Your task to perform on an android device: Go to notification settings Image 0: 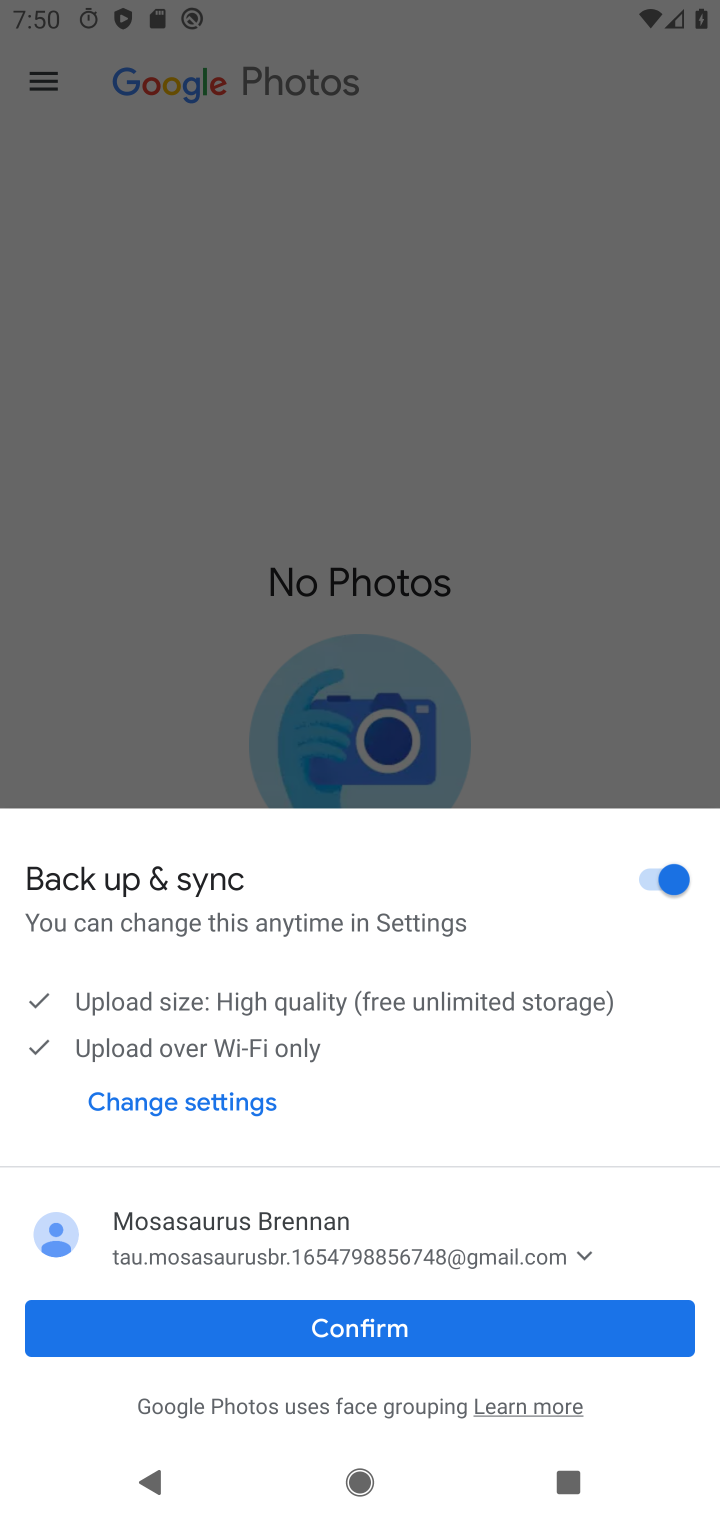
Step 0: press home button
Your task to perform on an android device: Go to notification settings Image 1: 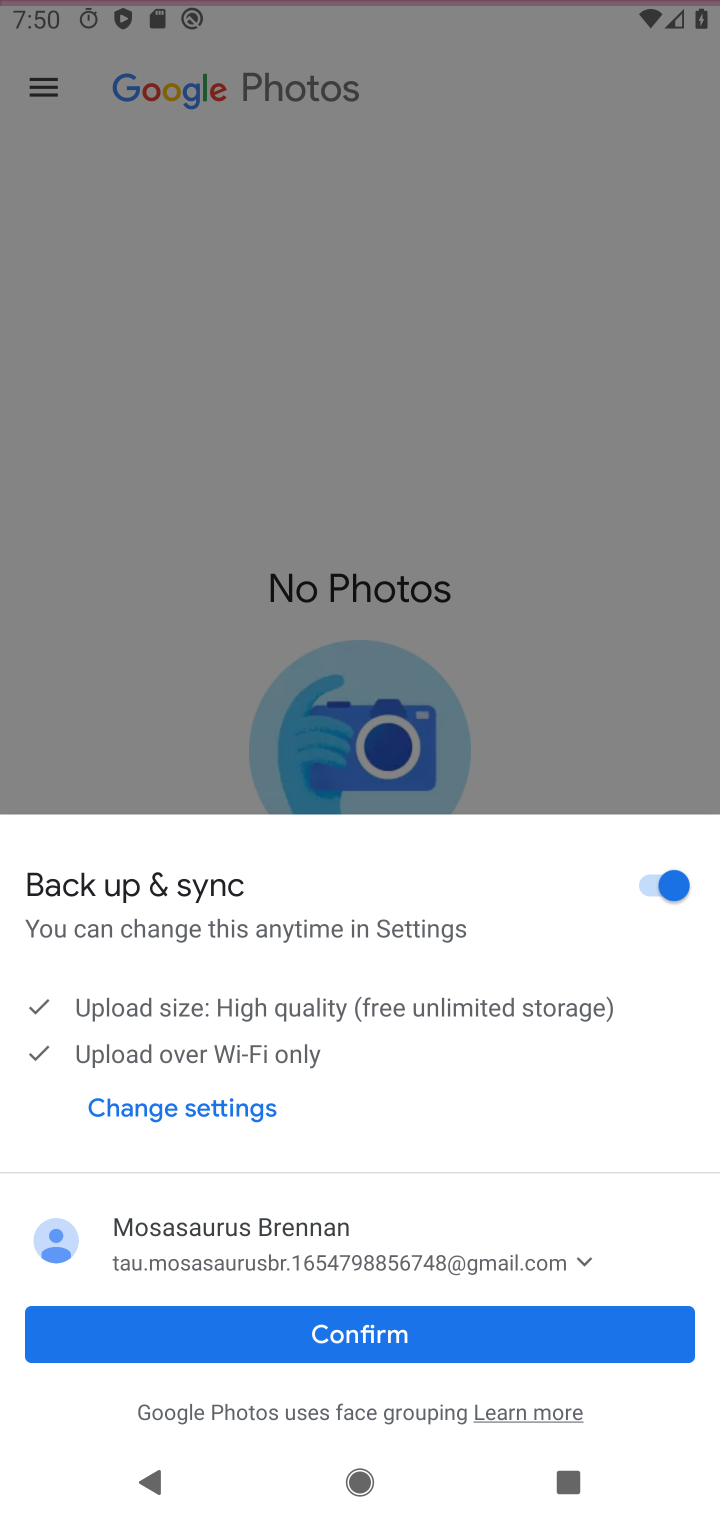
Step 1: click (398, 119)
Your task to perform on an android device: Go to notification settings Image 2: 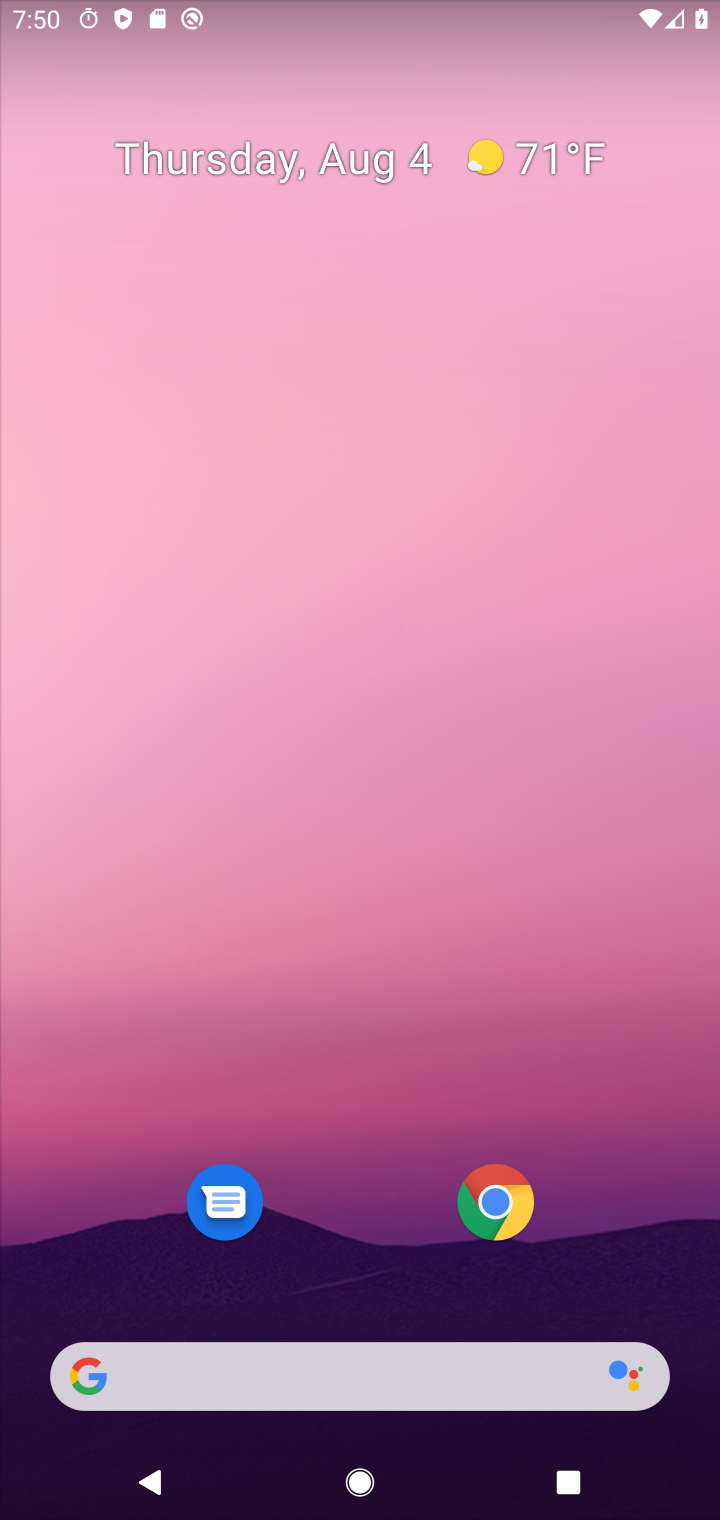
Step 2: click (345, 368)
Your task to perform on an android device: Go to notification settings Image 3: 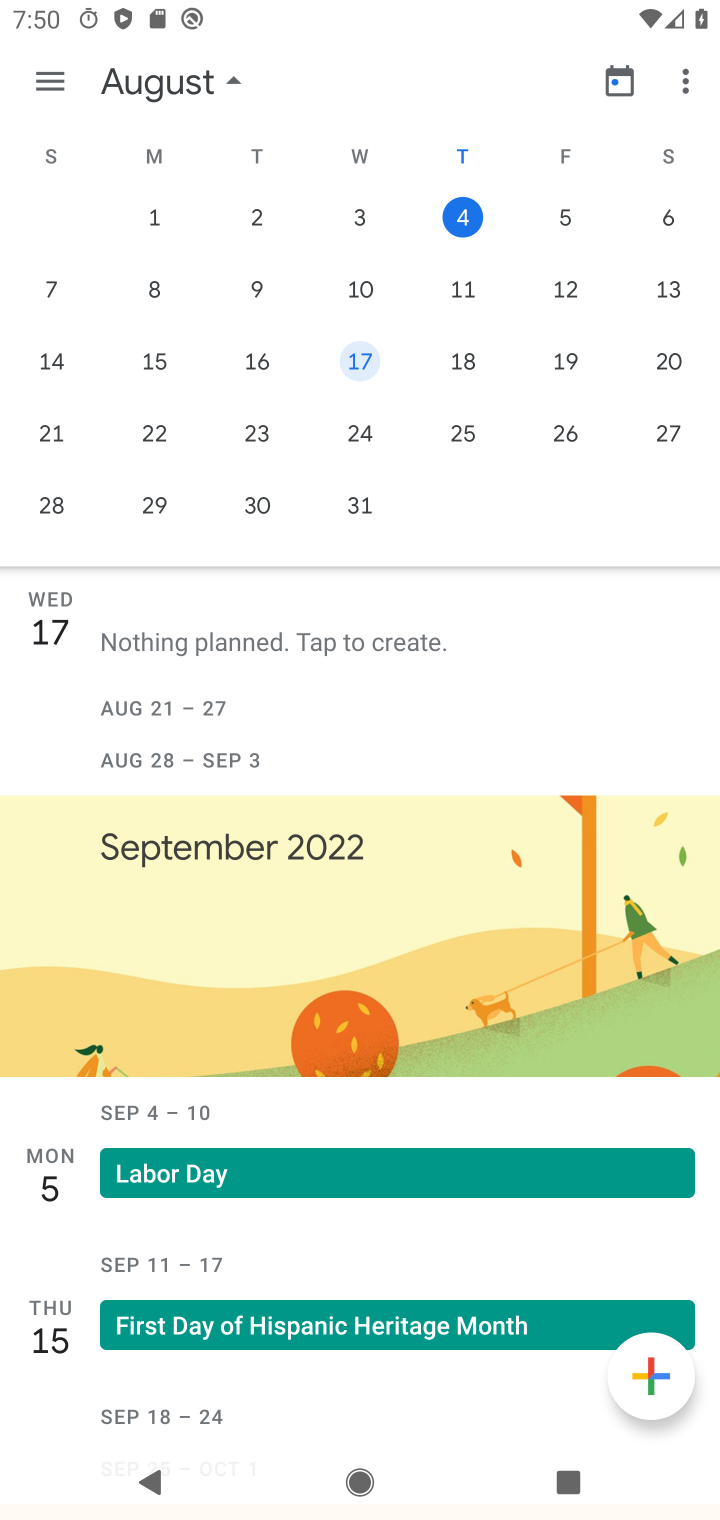
Step 3: press home button
Your task to perform on an android device: Go to notification settings Image 4: 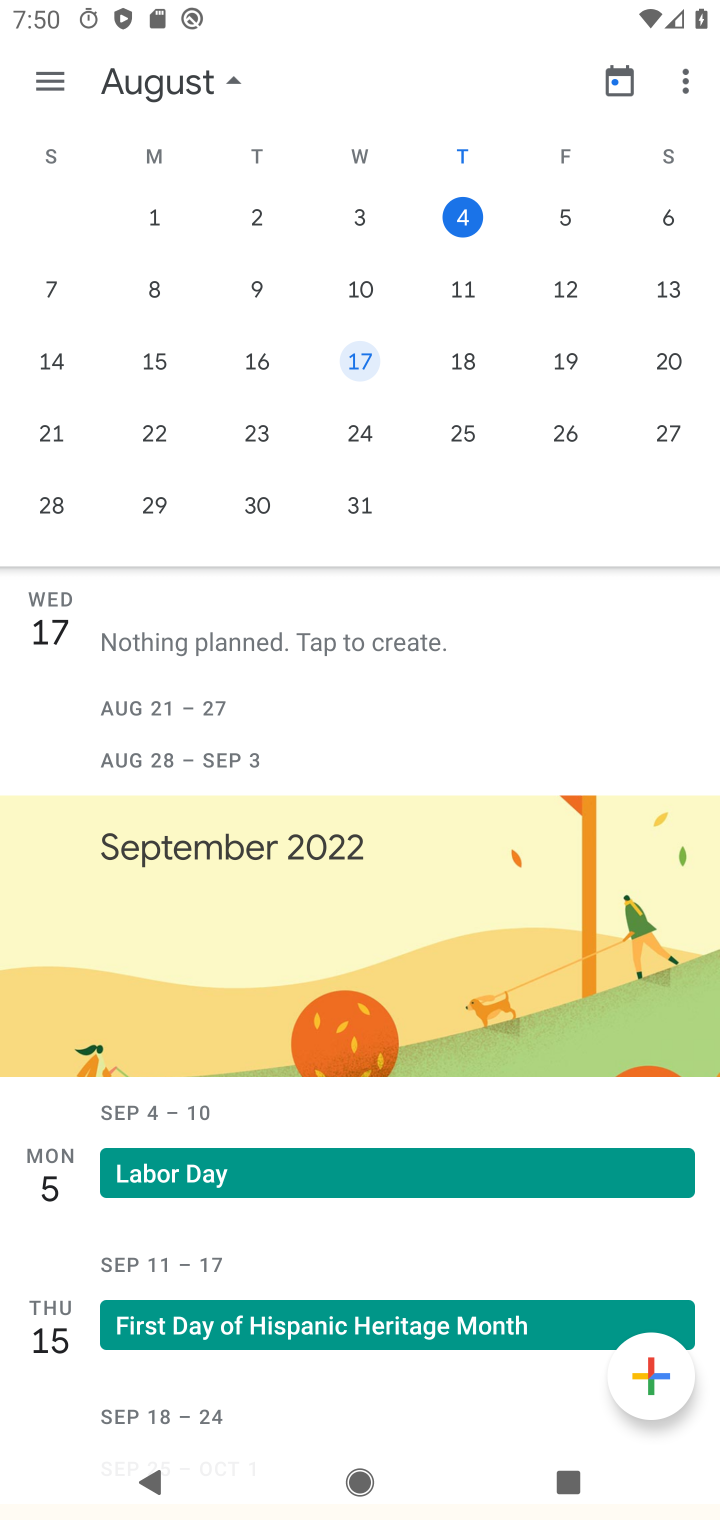
Step 4: click (410, 174)
Your task to perform on an android device: Go to notification settings Image 5: 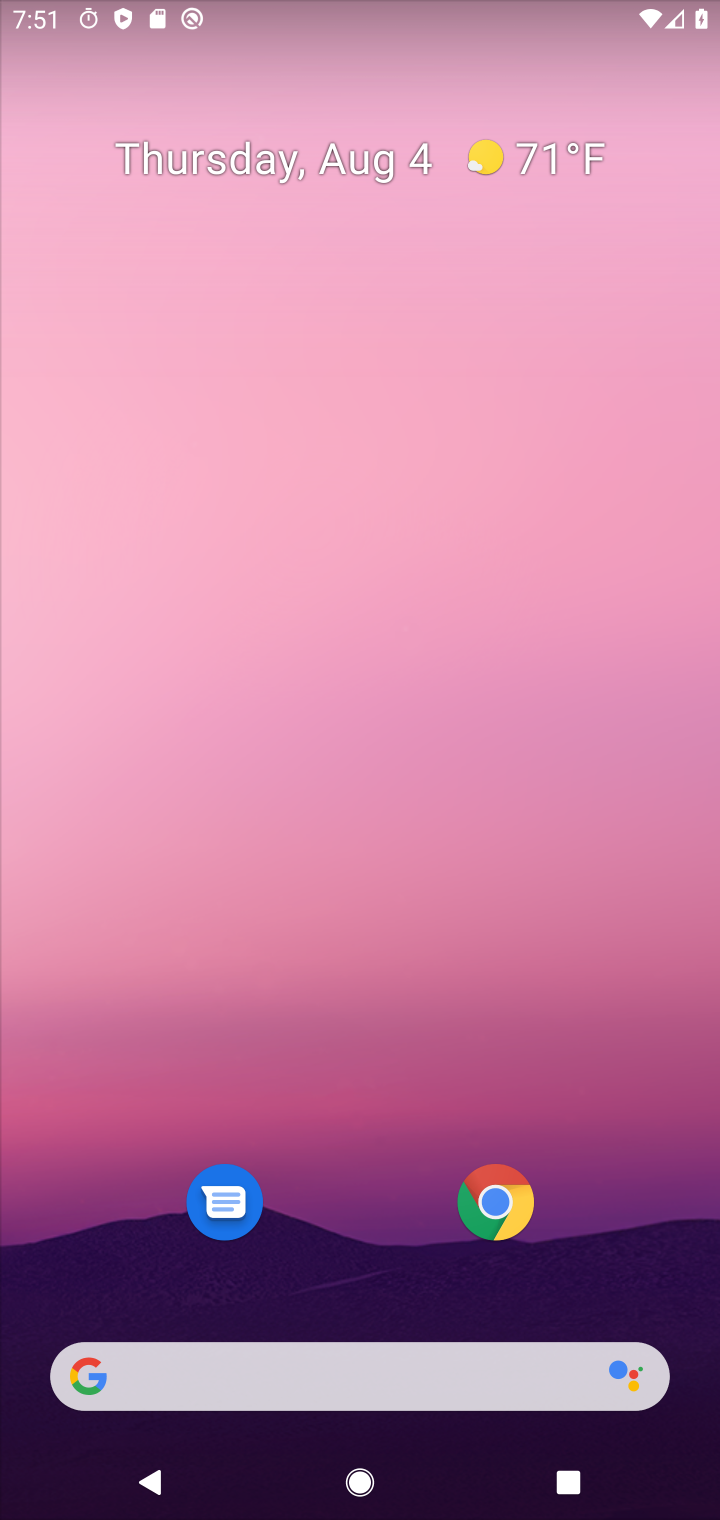
Step 5: drag from (347, 1004) to (400, 120)
Your task to perform on an android device: Go to notification settings Image 6: 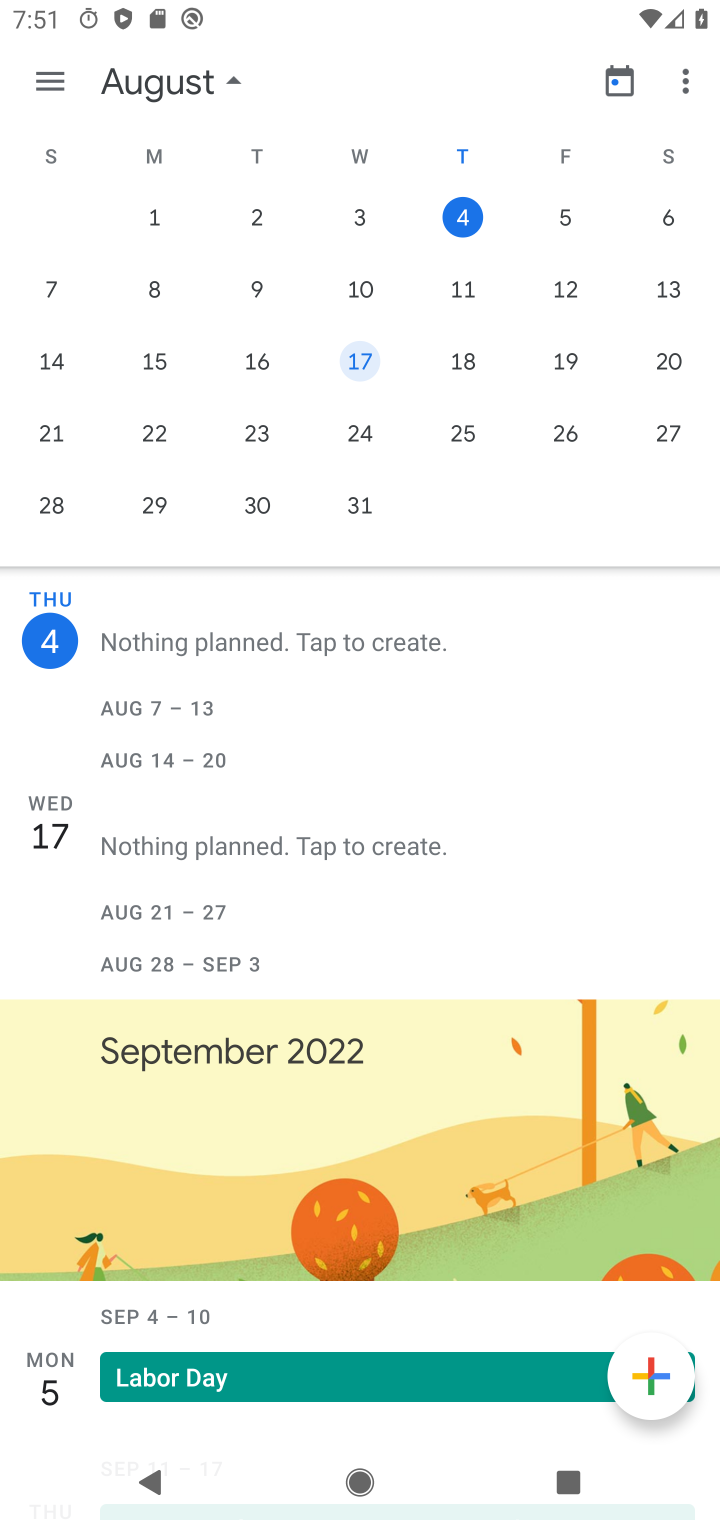
Step 6: press home button
Your task to perform on an android device: Go to notification settings Image 7: 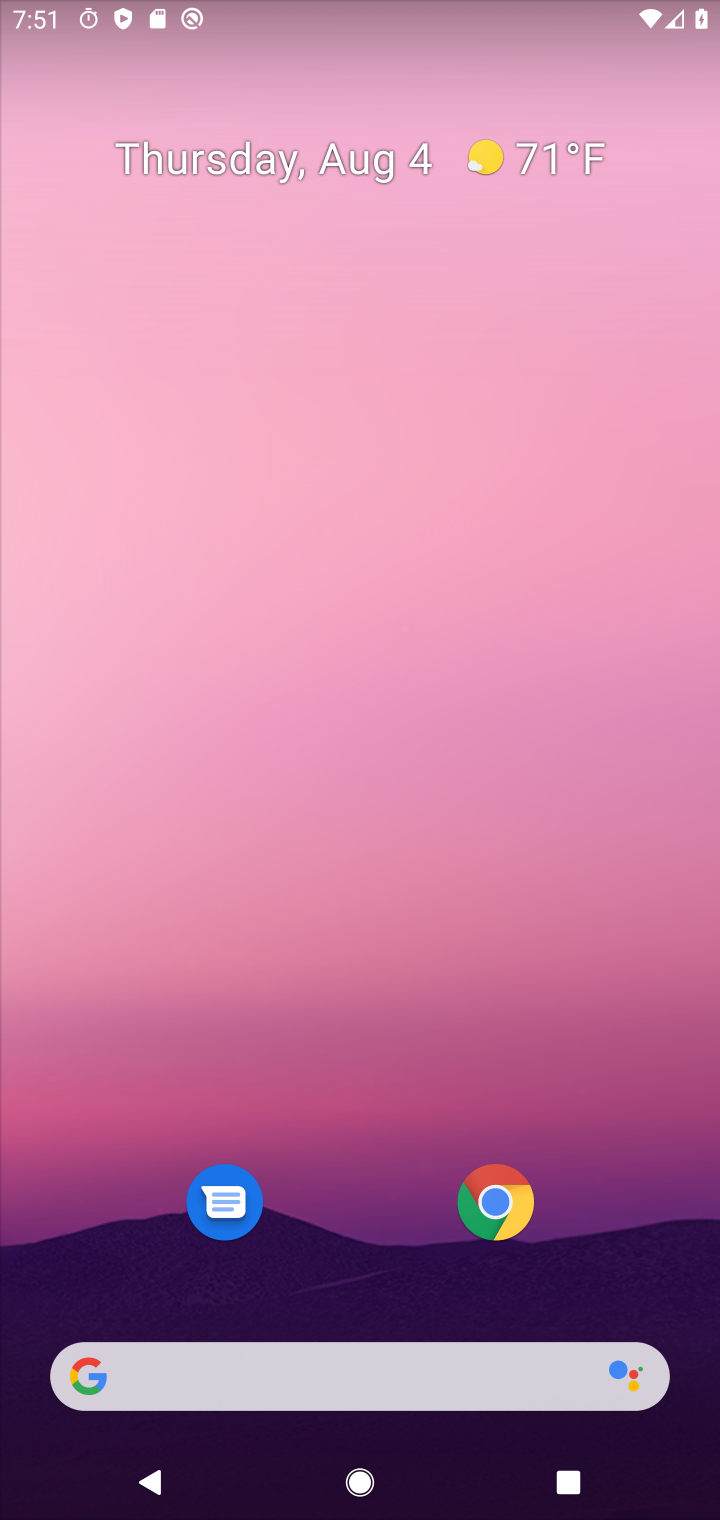
Step 7: drag from (318, 1259) to (266, 143)
Your task to perform on an android device: Go to notification settings Image 8: 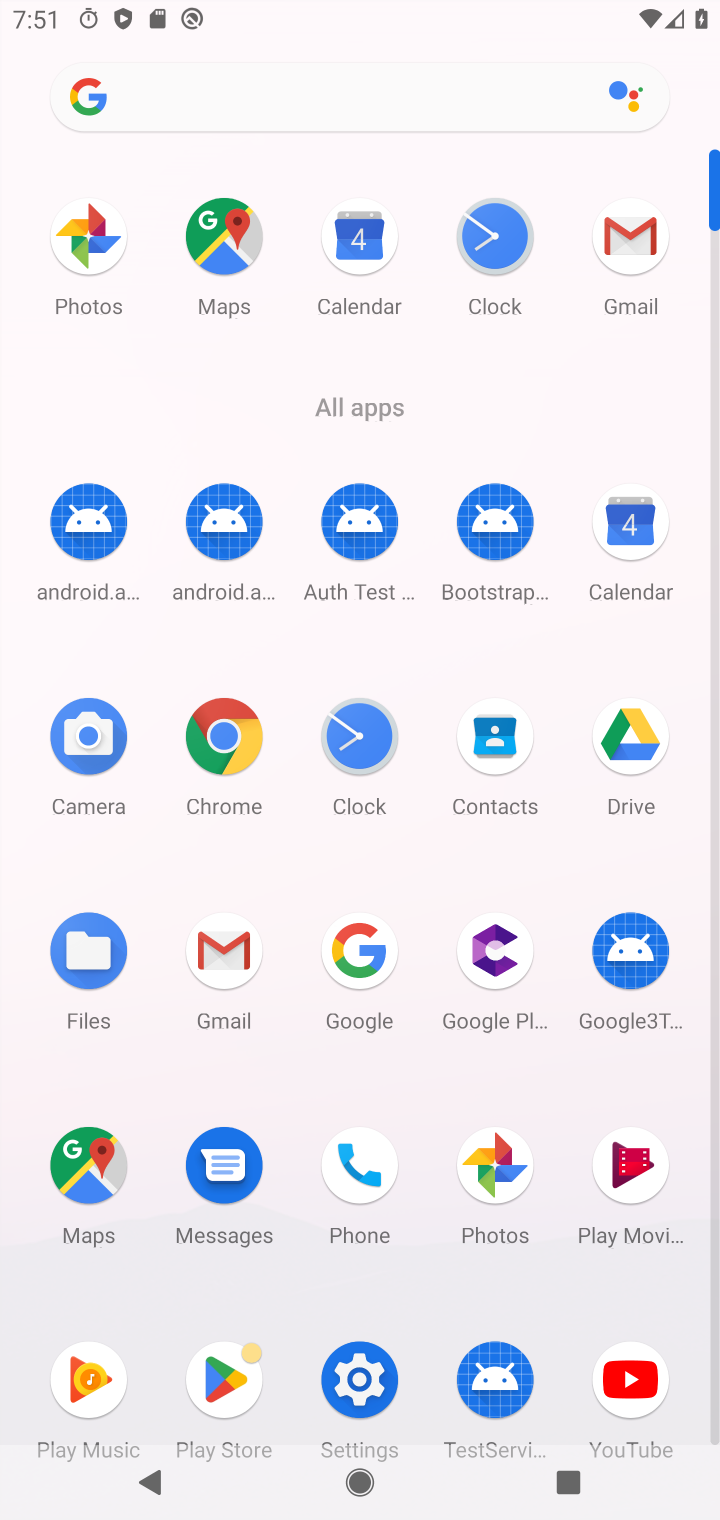
Step 8: click (374, 1352)
Your task to perform on an android device: Go to notification settings Image 9: 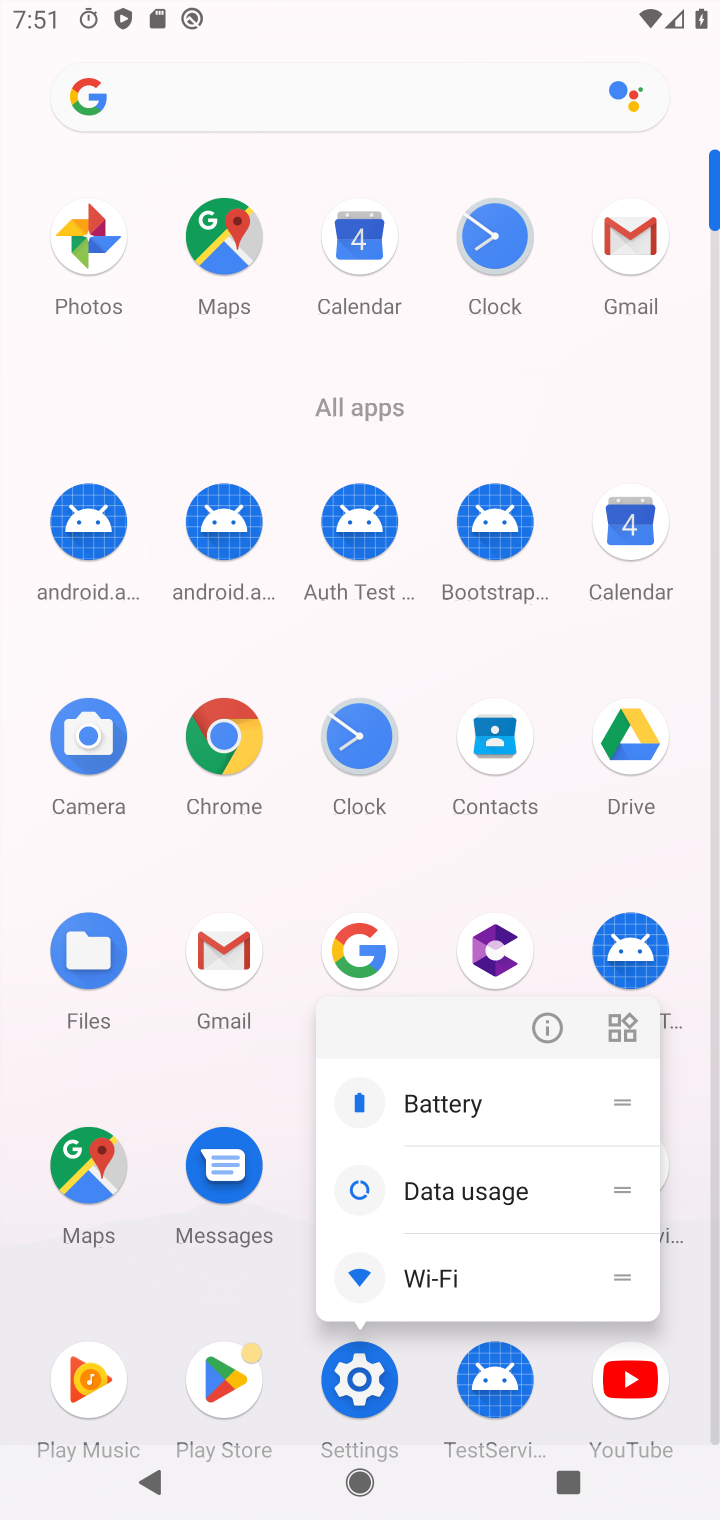
Step 9: click (546, 1029)
Your task to perform on an android device: Go to notification settings Image 10: 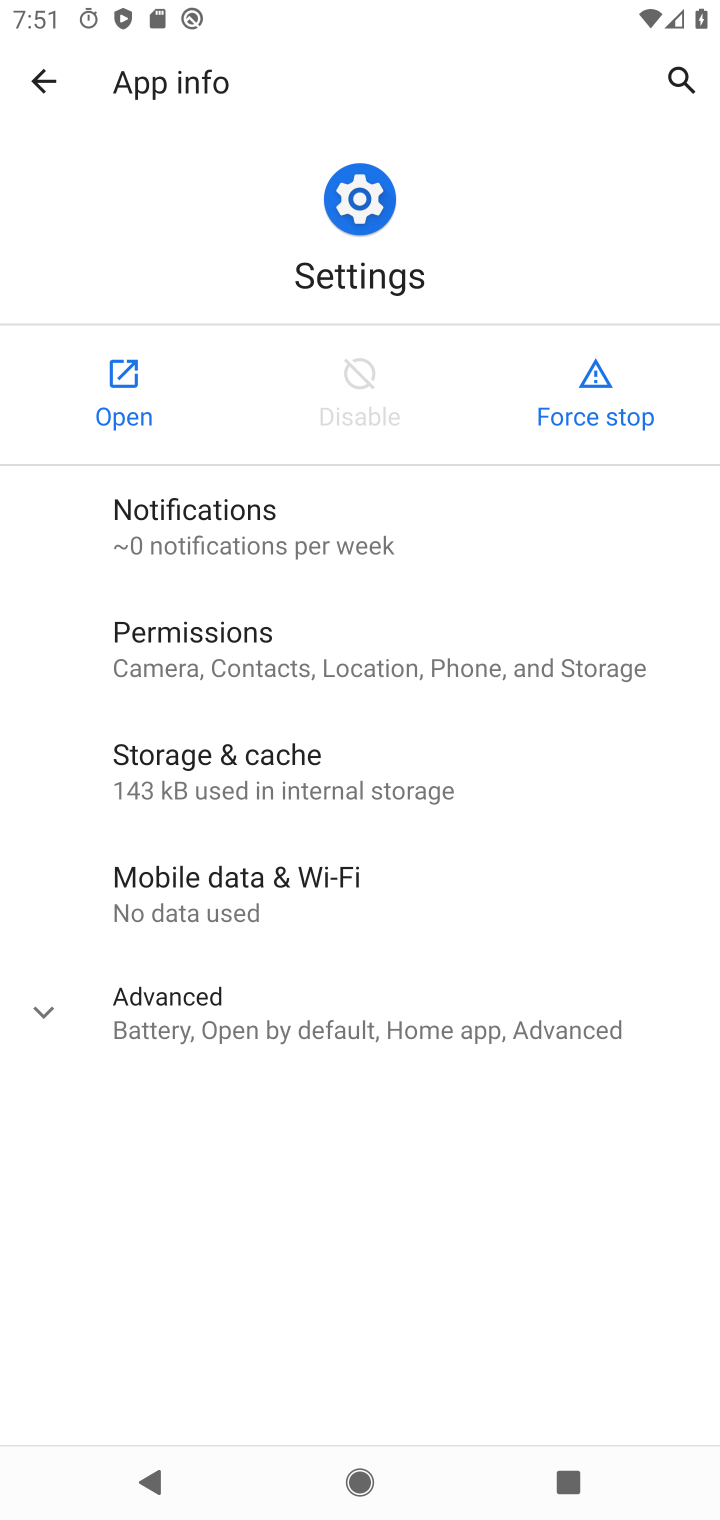
Step 10: click (86, 398)
Your task to perform on an android device: Go to notification settings Image 11: 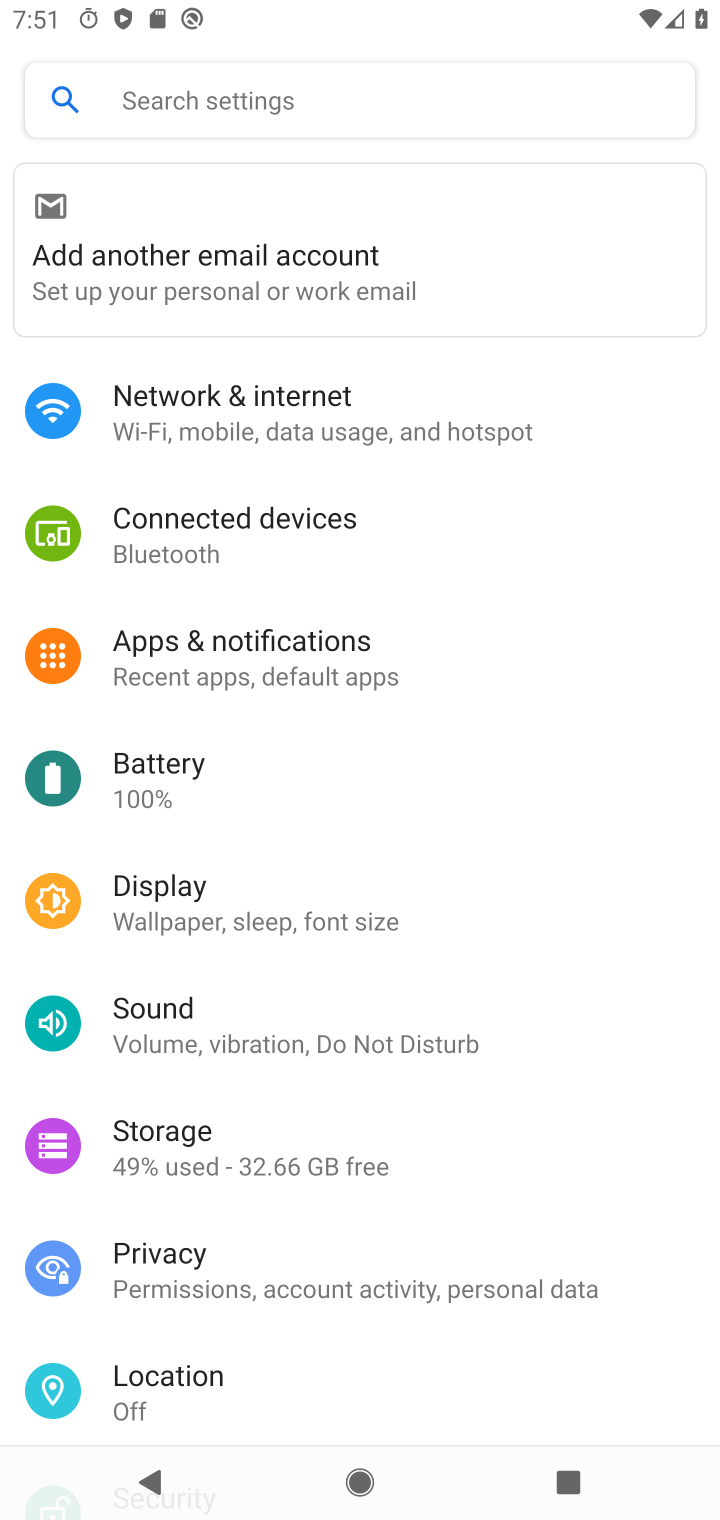
Step 11: drag from (315, 569) to (414, 289)
Your task to perform on an android device: Go to notification settings Image 12: 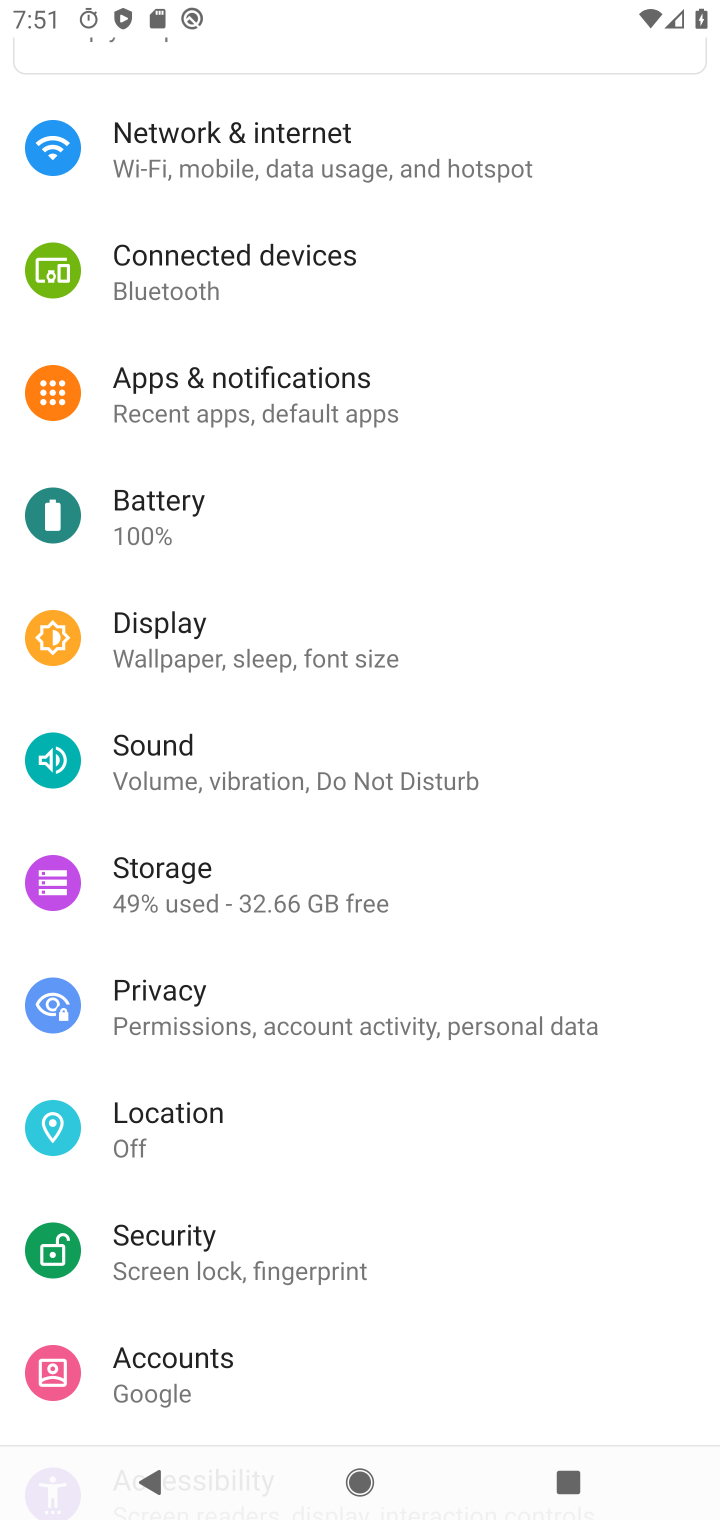
Step 12: click (206, 397)
Your task to perform on an android device: Go to notification settings Image 13: 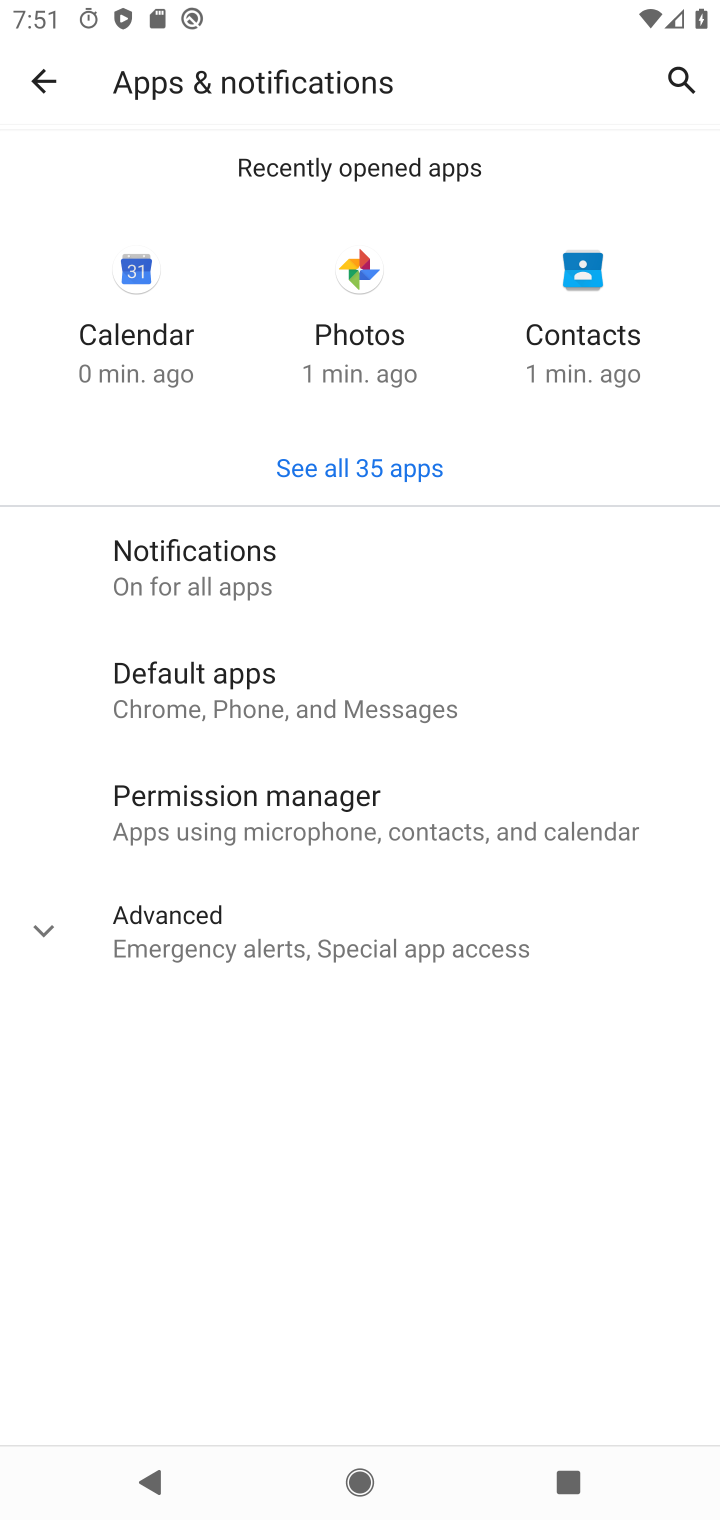
Step 13: click (327, 569)
Your task to perform on an android device: Go to notification settings Image 14: 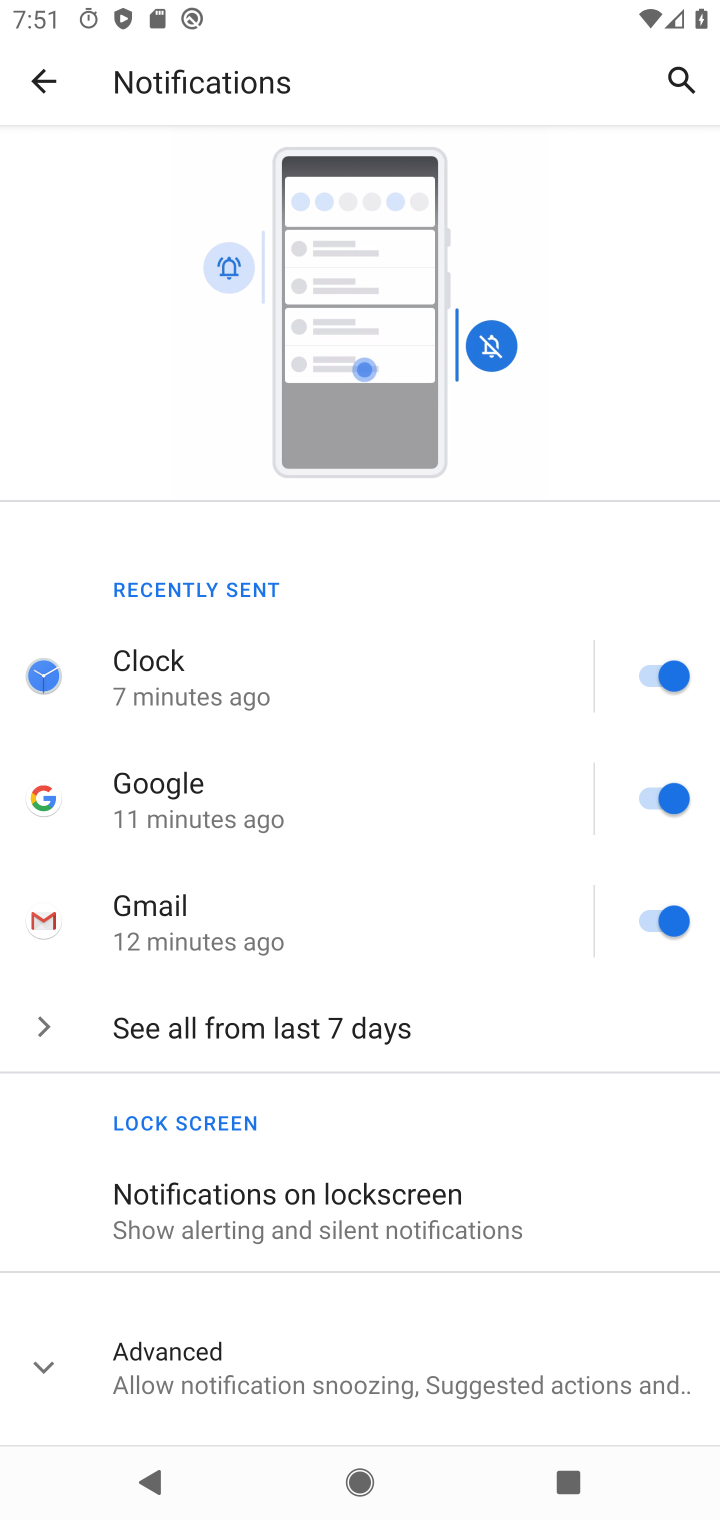
Step 14: task complete